Your task to perform on an android device: What's the time in San Francisco? Image 0: 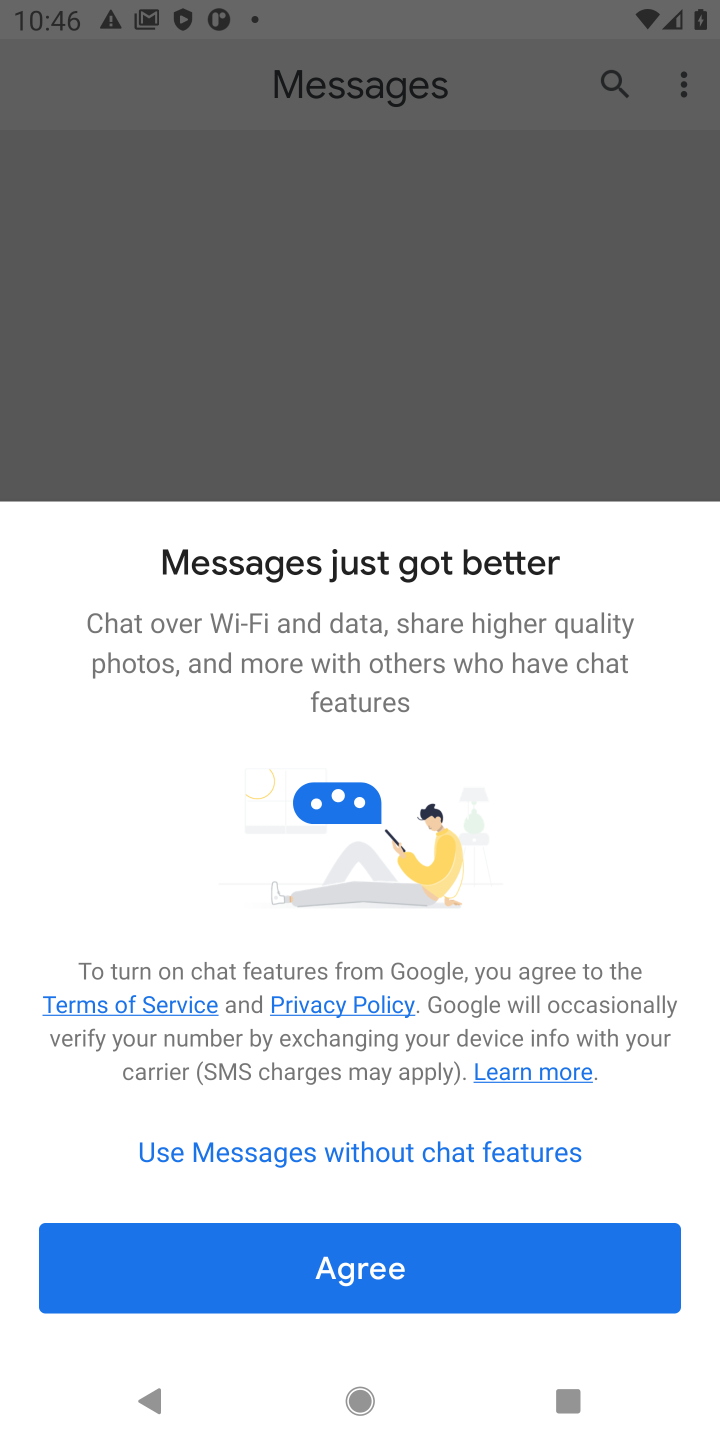
Step 0: press home button
Your task to perform on an android device: What's the time in San Francisco? Image 1: 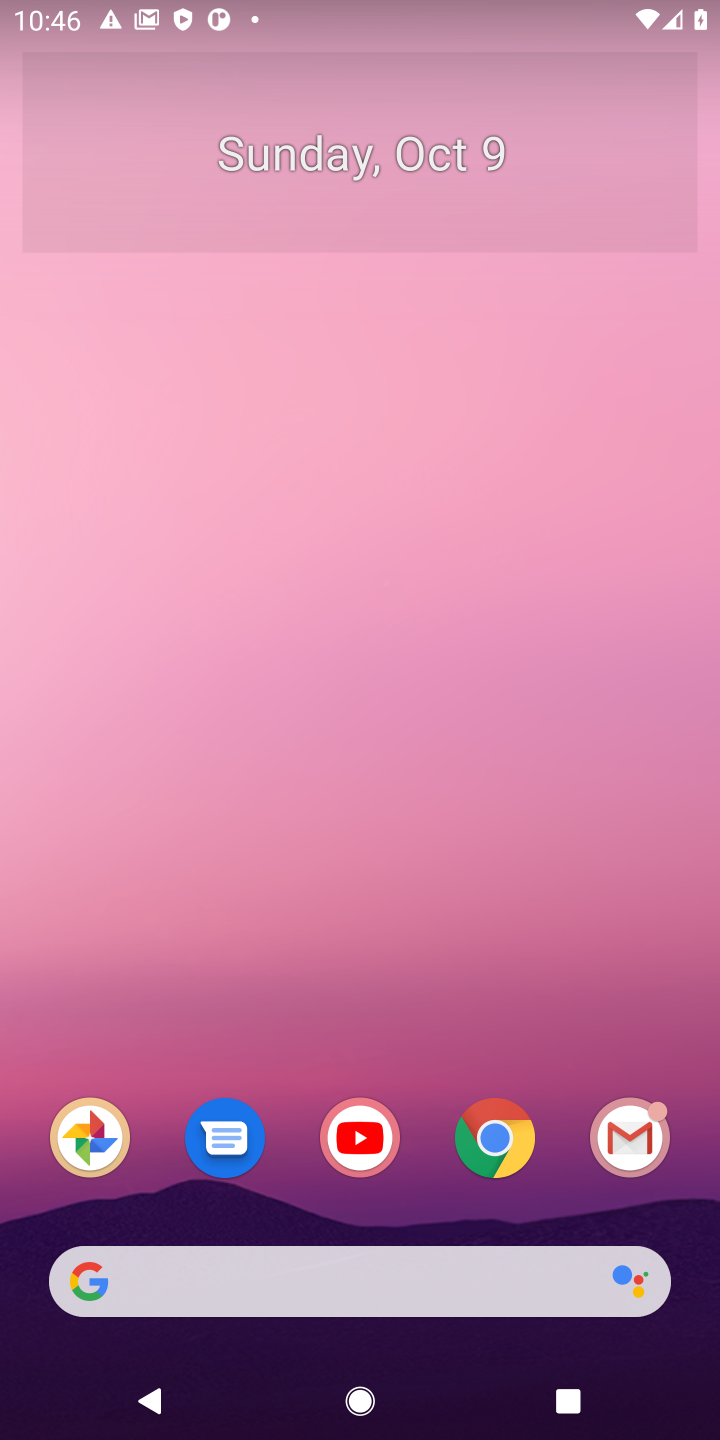
Step 1: drag from (409, 1255) to (304, 262)
Your task to perform on an android device: What's the time in San Francisco? Image 2: 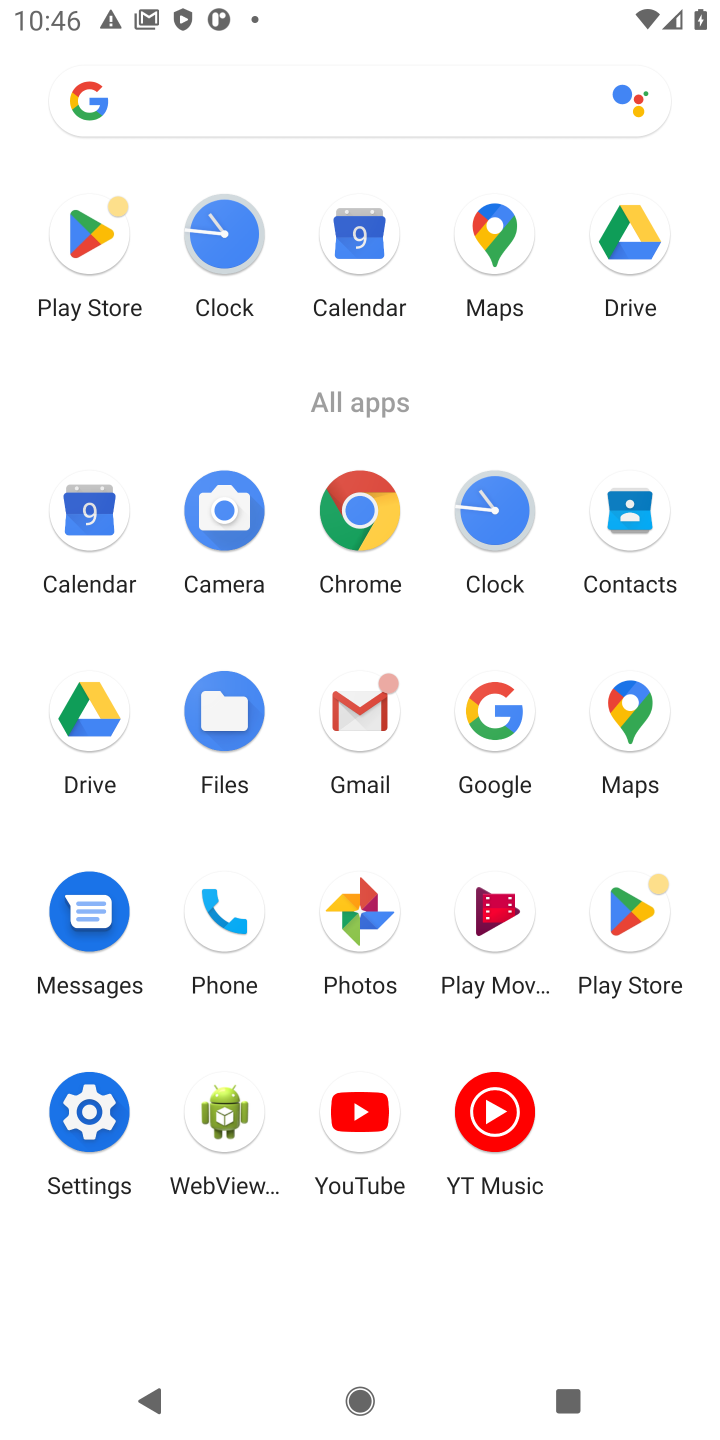
Step 2: click (357, 519)
Your task to perform on an android device: What's the time in San Francisco? Image 3: 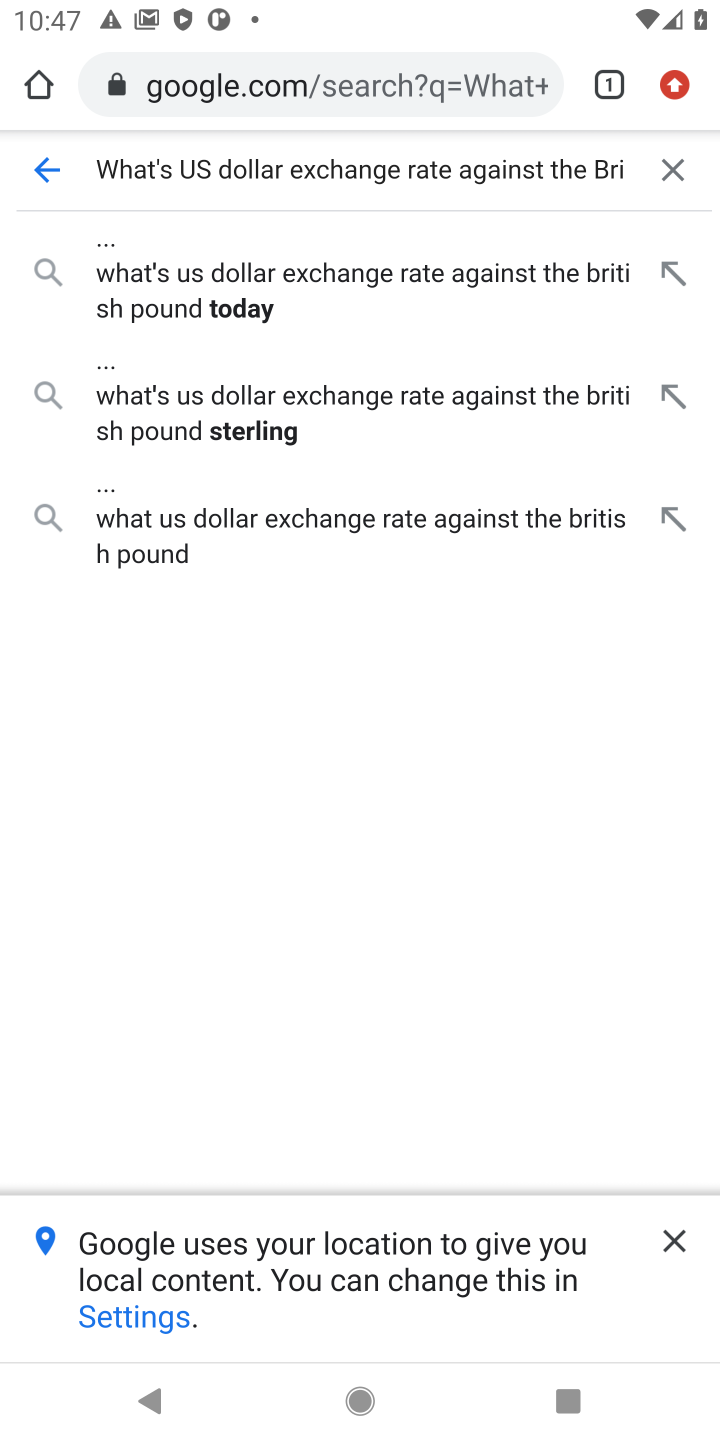
Step 3: click (684, 161)
Your task to perform on an android device: What's the time in San Francisco? Image 4: 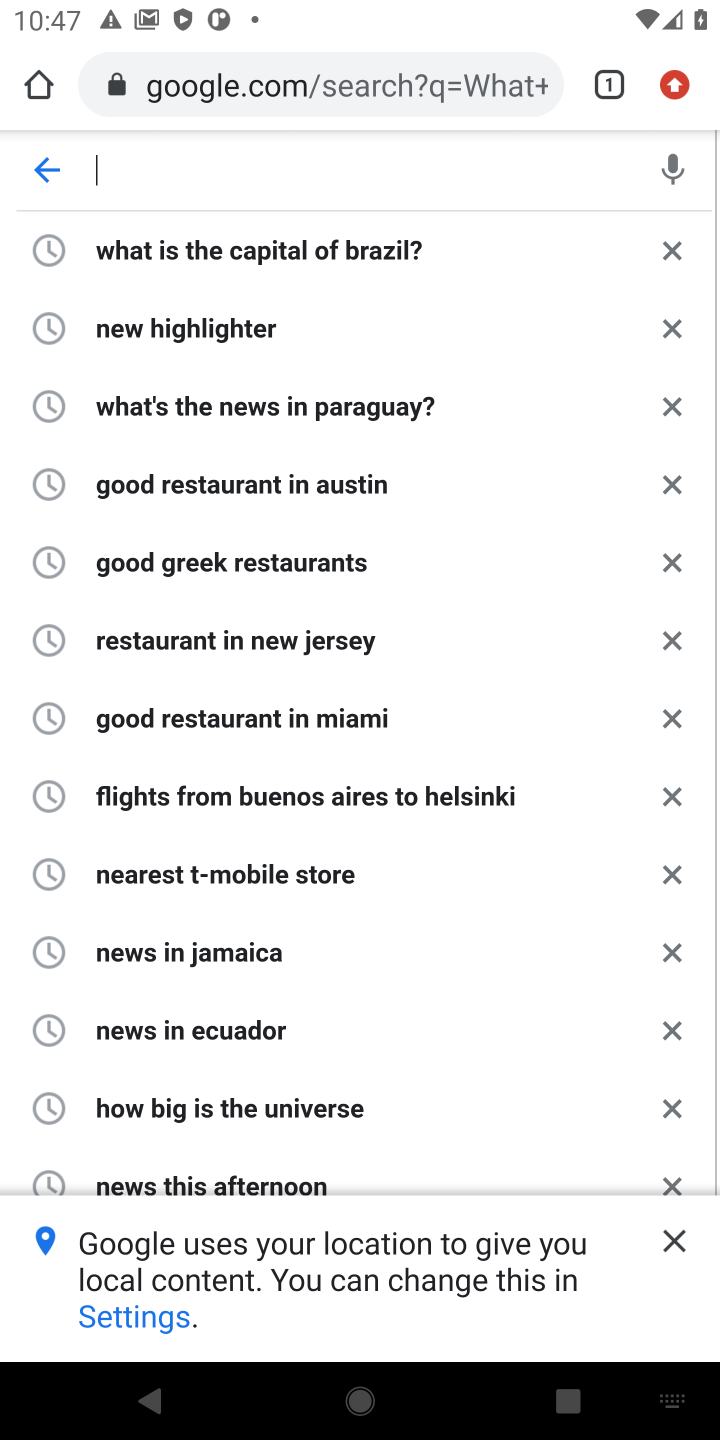
Step 4: type "What's the time in San Francisco?"
Your task to perform on an android device: What's the time in San Francisco? Image 5: 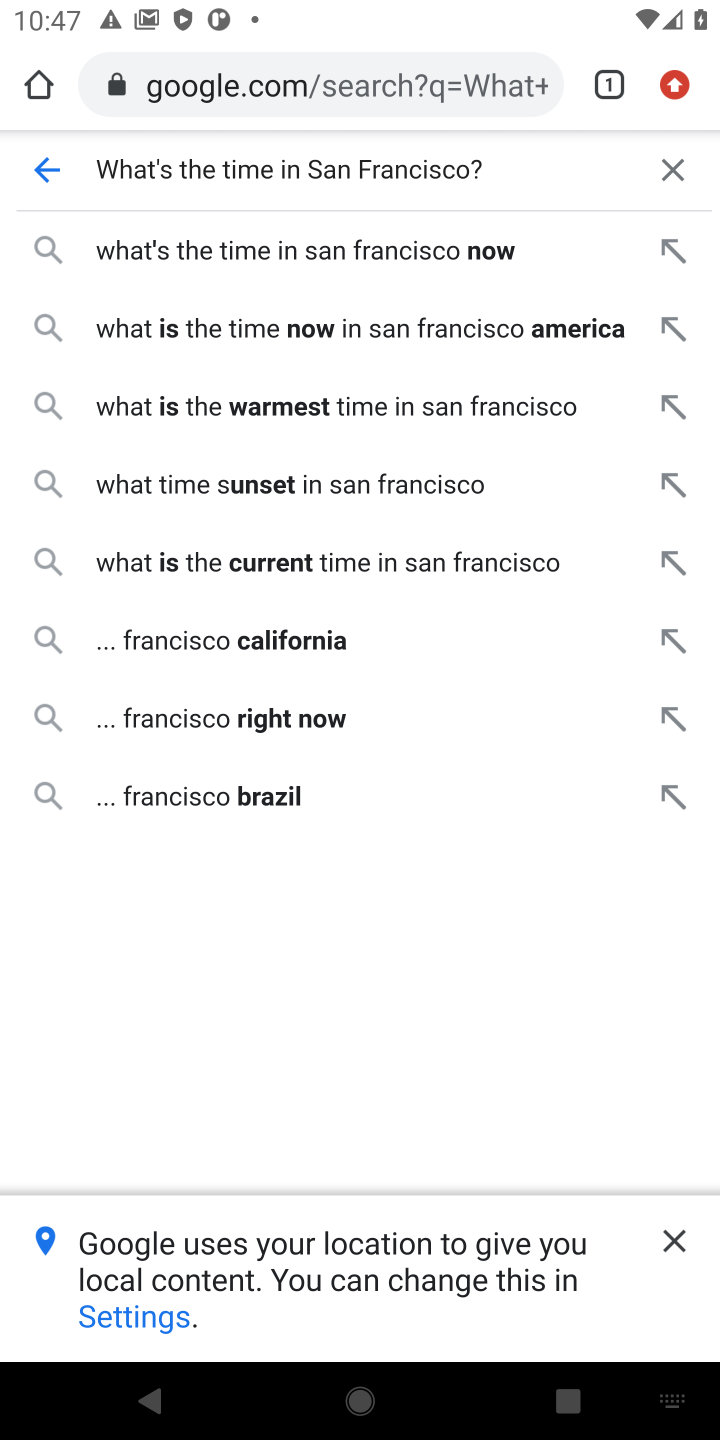
Step 5: task complete